Your task to perform on an android device: Go to accessibility settings Image 0: 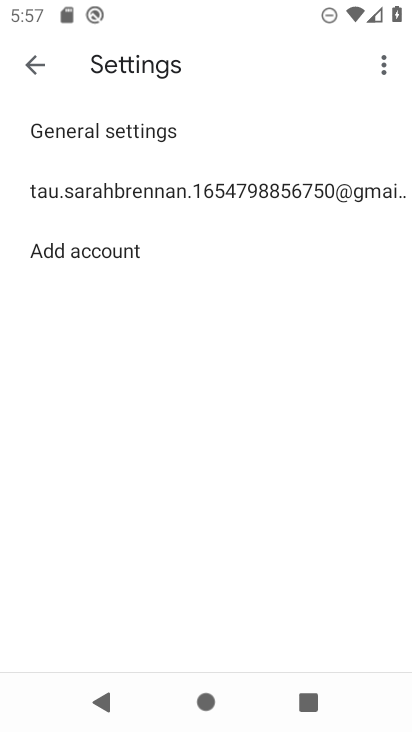
Step 0: press home button
Your task to perform on an android device: Go to accessibility settings Image 1: 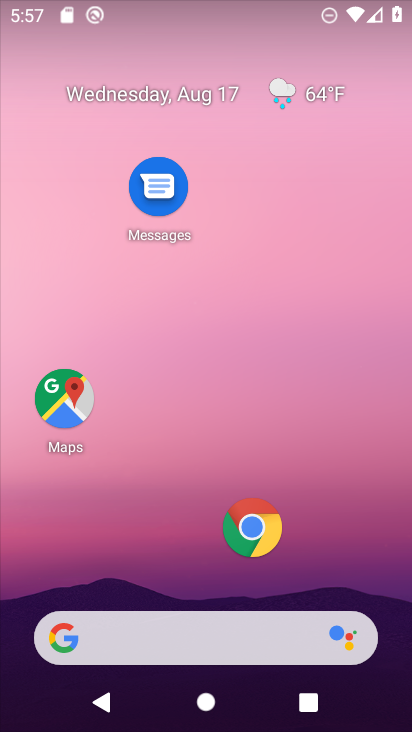
Step 1: drag from (168, 619) to (231, 219)
Your task to perform on an android device: Go to accessibility settings Image 2: 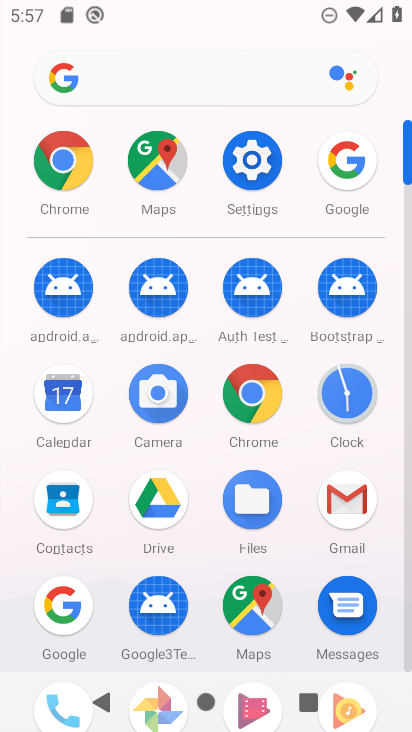
Step 2: click (266, 164)
Your task to perform on an android device: Go to accessibility settings Image 3: 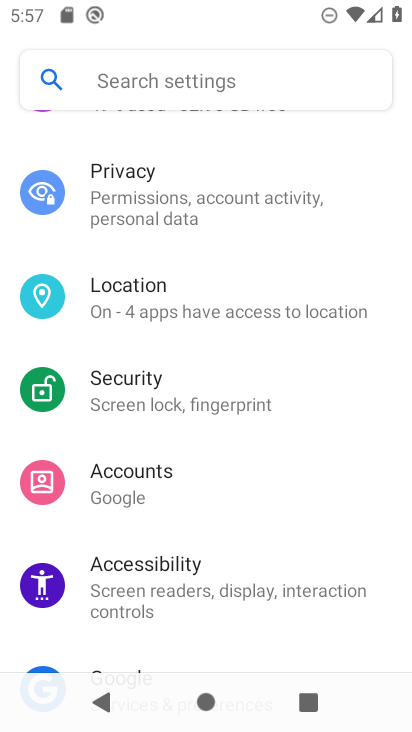
Step 3: click (167, 581)
Your task to perform on an android device: Go to accessibility settings Image 4: 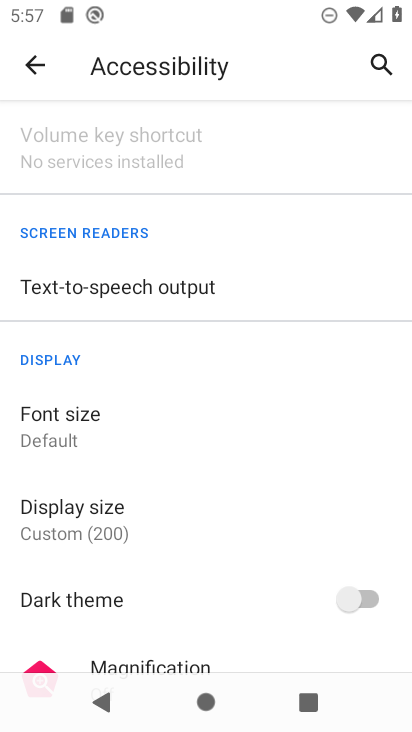
Step 4: task complete